Your task to perform on an android device: View the shopping cart on walmart. Add dell alienware to the cart on walmart, then select checkout. Image 0: 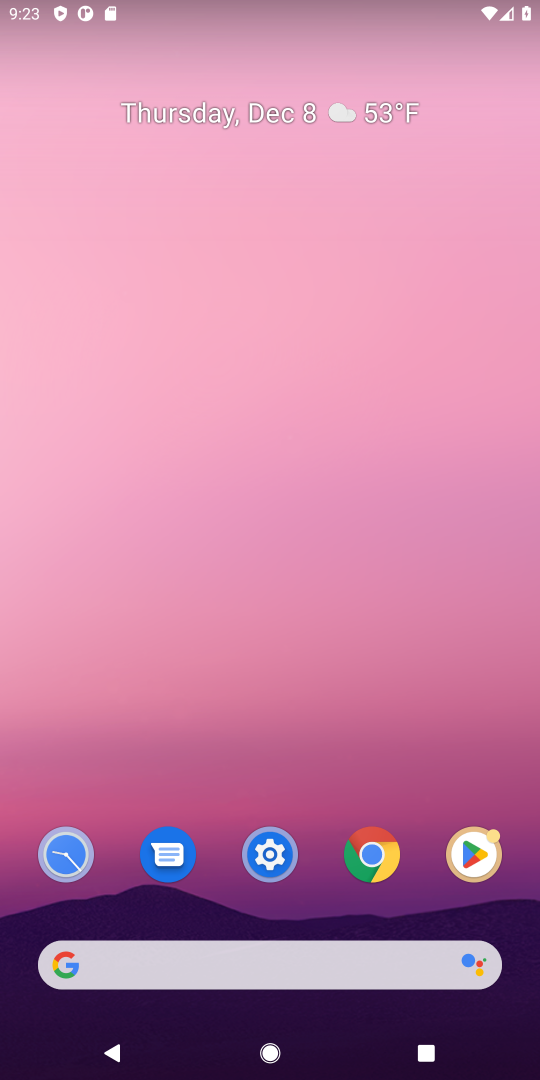
Step 0: click (86, 963)
Your task to perform on an android device: View the shopping cart on walmart. Add dell alienware to the cart on walmart, then select checkout. Image 1: 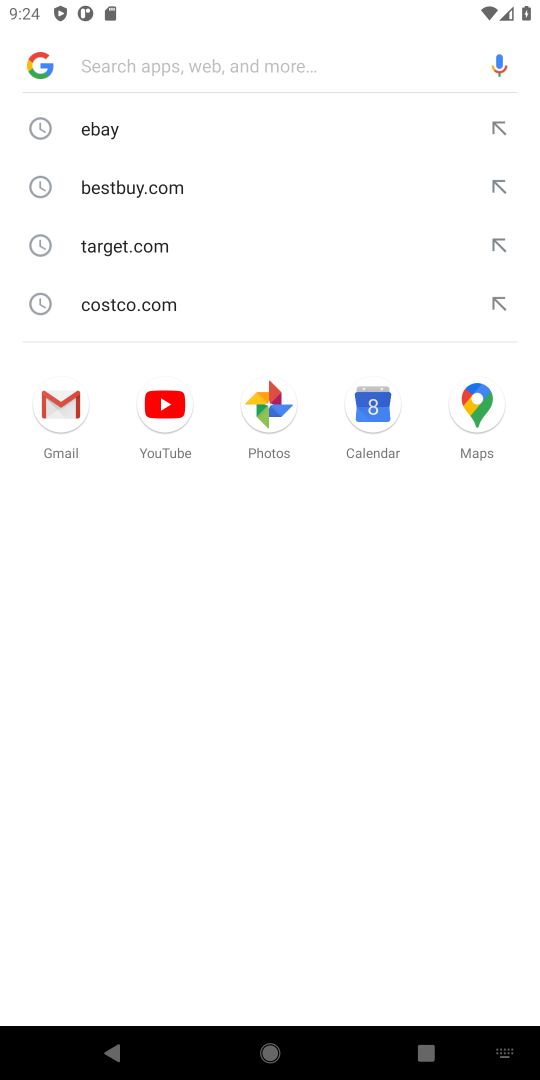
Step 1: type " walmart"
Your task to perform on an android device: View the shopping cart on walmart. Add dell alienware to the cart on walmart, then select checkout. Image 2: 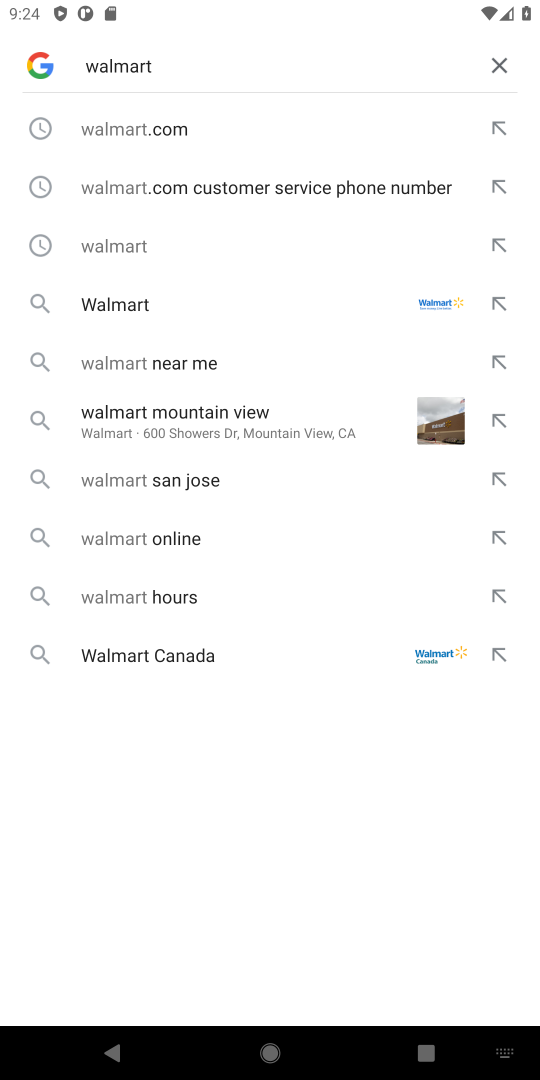
Step 2: press enter
Your task to perform on an android device: View the shopping cart on walmart. Add dell alienware to the cart on walmart, then select checkout. Image 3: 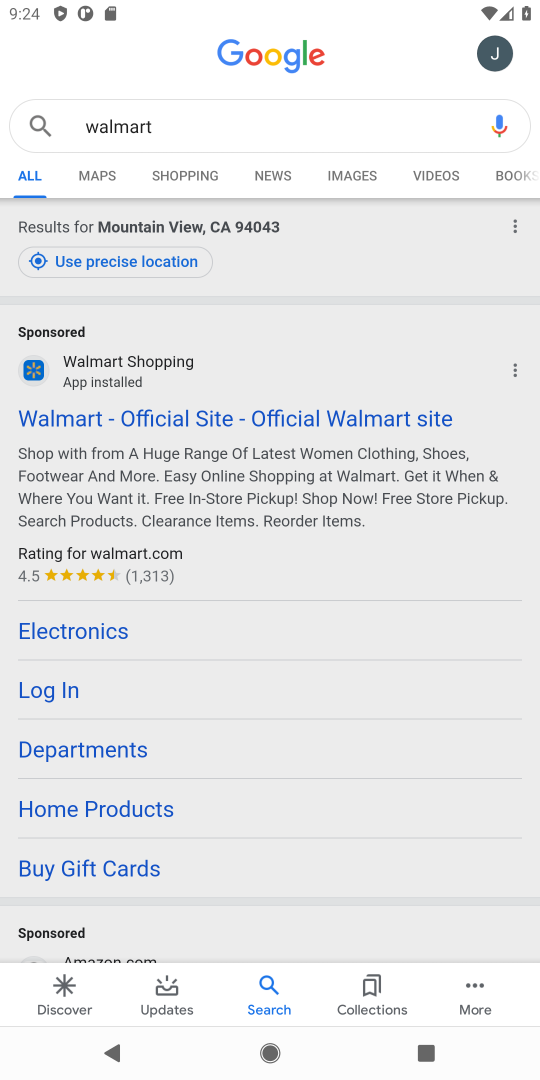
Step 3: click (155, 408)
Your task to perform on an android device: View the shopping cart on walmart. Add dell alienware to the cart on walmart, then select checkout. Image 4: 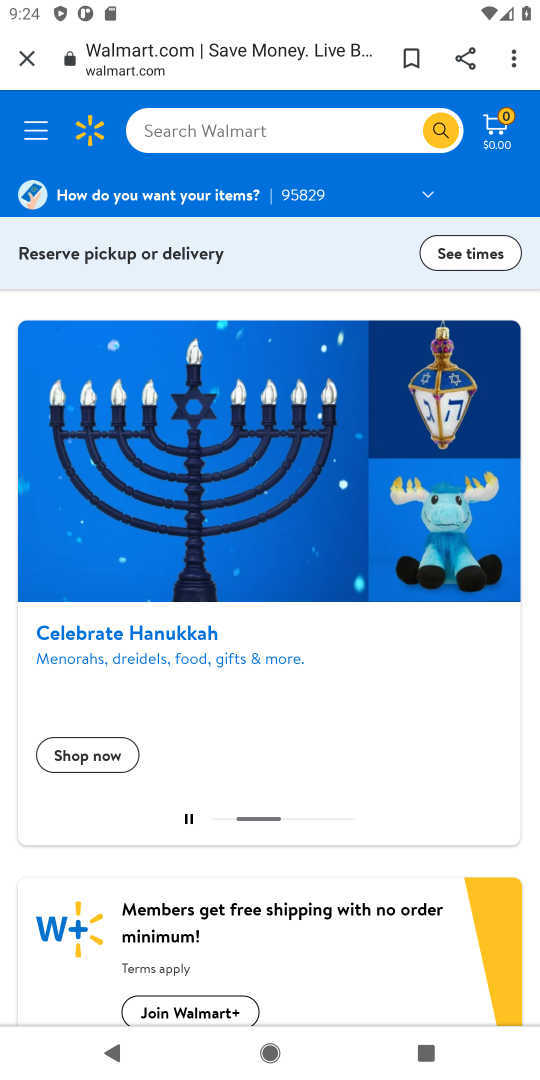
Step 4: click (494, 123)
Your task to perform on an android device: View the shopping cart on walmart. Add dell alienware to the cart on walmart, then select checkout. Image 5: 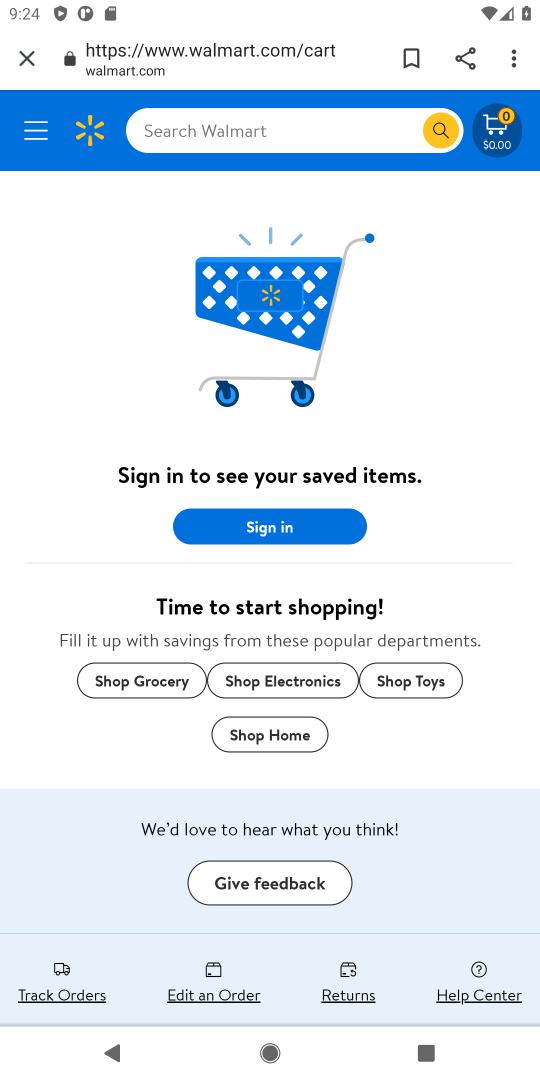
Step 5: click (164, 134)
Your task to perform on an android device: View the shopping cart on walmart. Add dell alienware to the cart on walmart, then select checkout. Image 6: 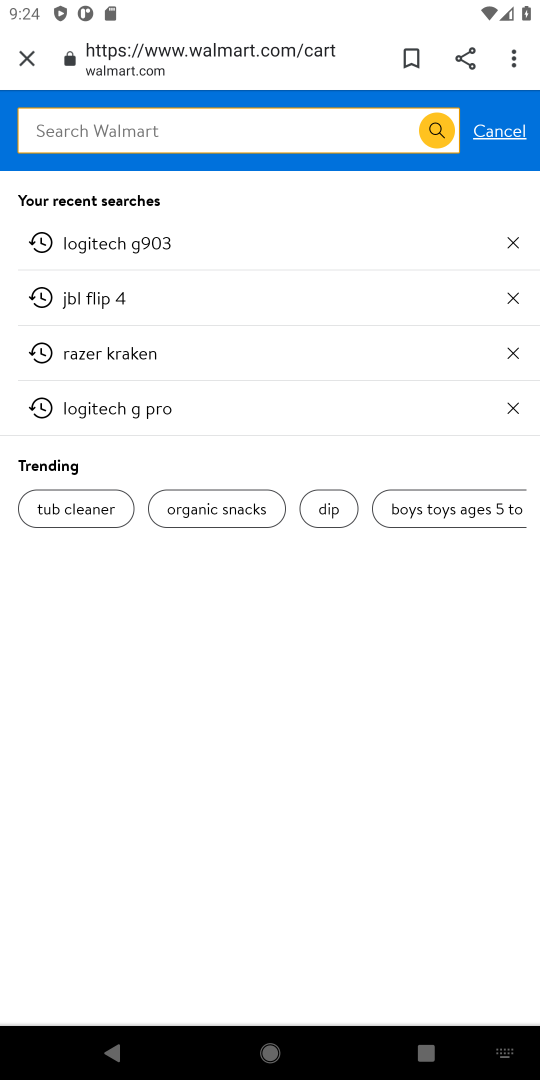
Step 6: type "dell alienware"
Your task to perform on an android device: View the shopping cart on walmart. Add dell alienware to the cart on walmart, then select checkout. Image 7: 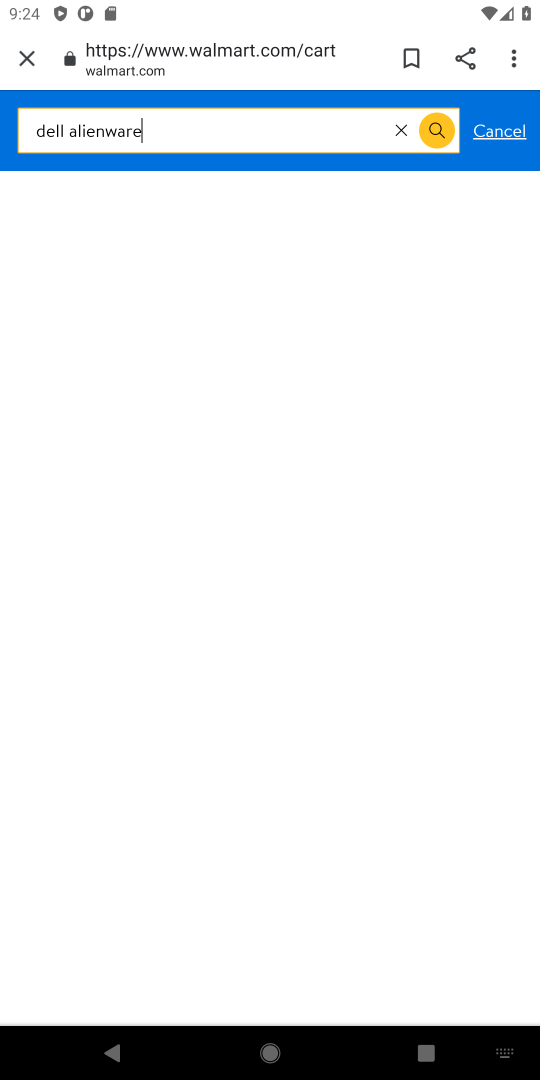
Step 7: press enter
Your task to perform on an android device: View the shopping cart on walmart. Add dell alienware to the cart on walmart, then select checkout. Image 8: 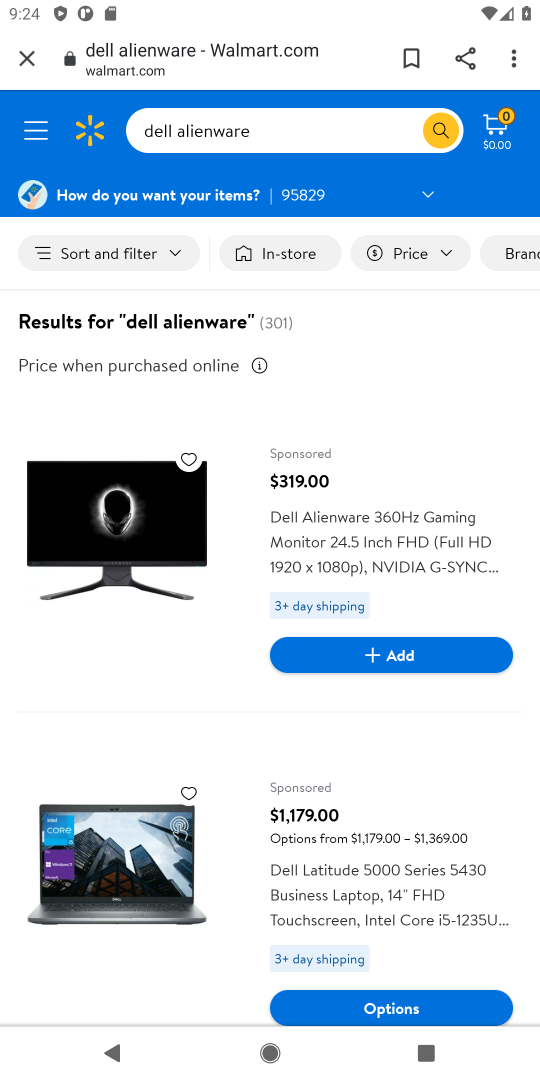
Step 8: click (390, 655)
Your task to perform on an android device: View the shopping cart on walmart. Add dell alienware to the cart on walmart, then select checkout. Image 9: 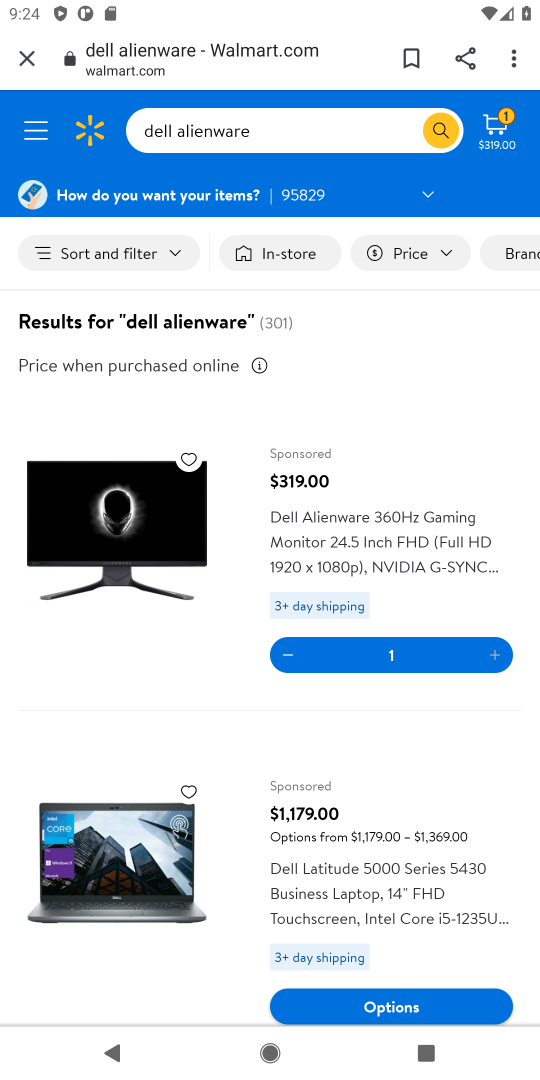
Step 9: click (491, 123)
Your task to perform on an android device: View the shopping cart on walmart. Add dell alienware to the cart on walmart, then select checkout. Image 10: 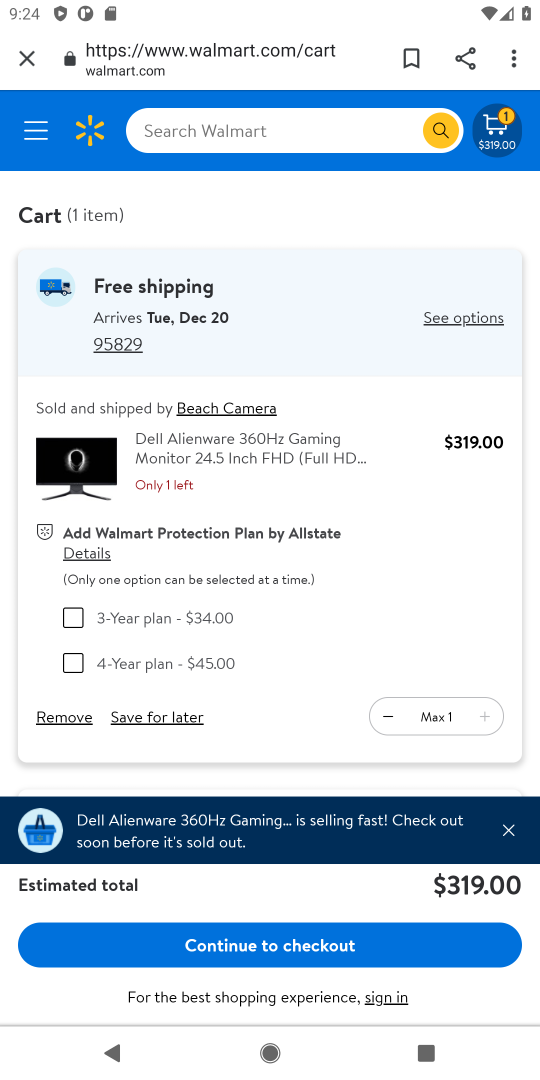
Step 10: click (209, 942)
Your task to perform on an android device: View the shopping cart on walmart. Add dell alienware to the cart on walmart, then select checkout. Image 11: 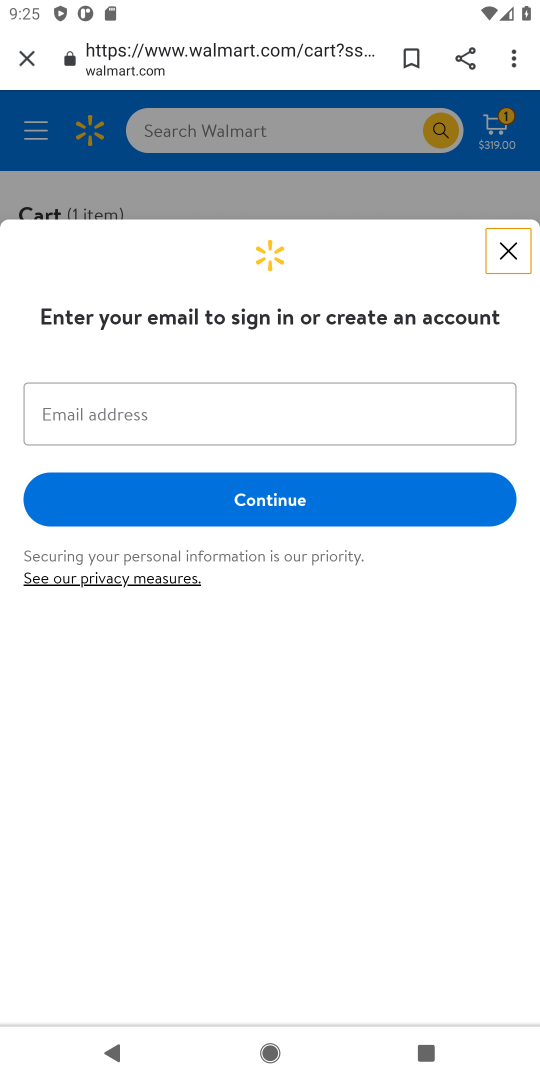
Step 11: task complete